Your task to perform on an android device: open sync settings in chrome Image 0: 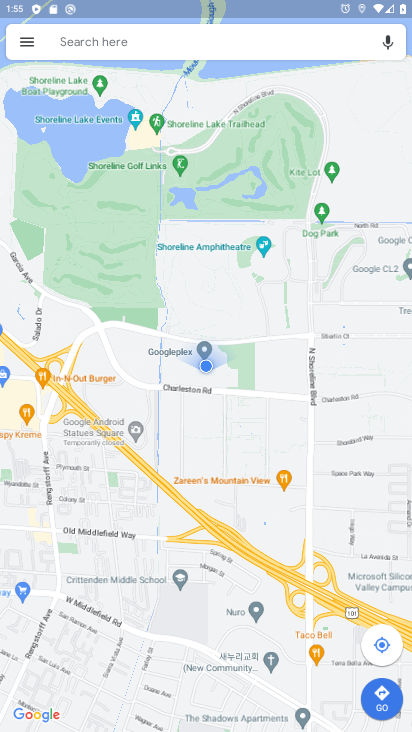
Step 0: press home button
Your task to perform on an android device: open sync settings in chrome Image 1: 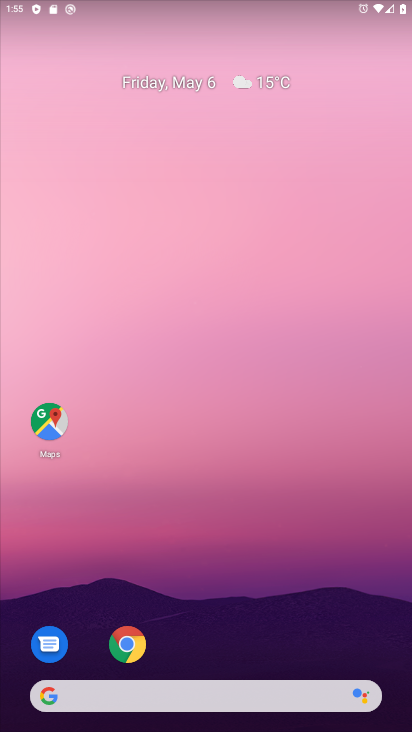
Step 1: click (139, 651)
Your task to perform on an android device: open sync settings in chrome Image 2: 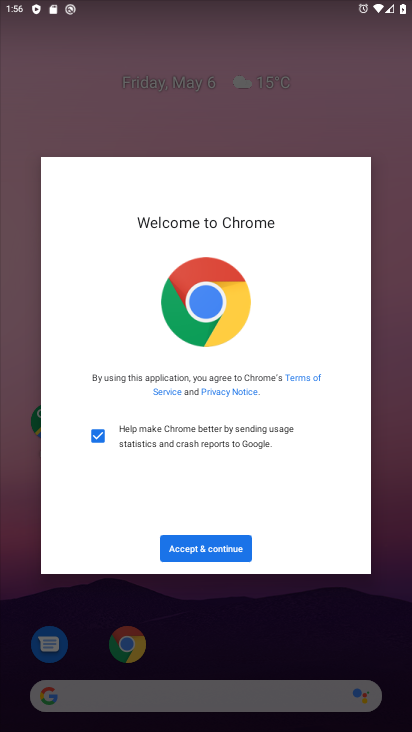
Step 2: click (218, 543)
Your task to perform on an android device: open sync settings in chrome Image 3: 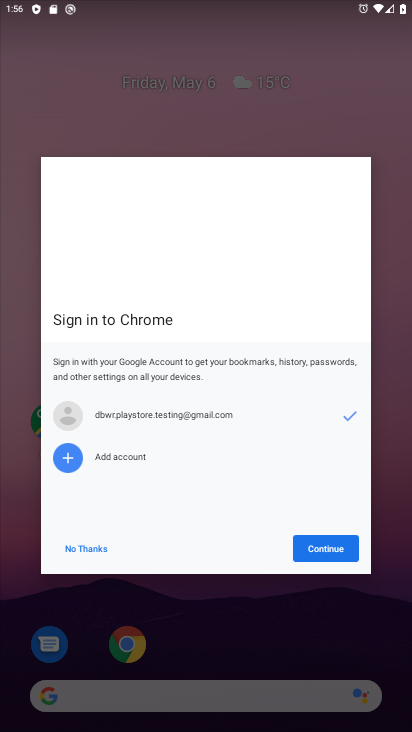
Step 3: click (315, 553)
Your task to perform on an android device: open sync settings in chrome Image 4: 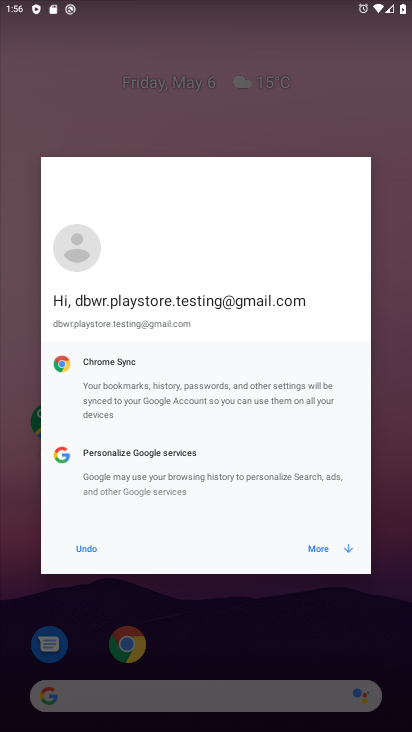
Step 4: click (315, 553)
Your task to perform on an android device: open sync settings in chrome Image 5: 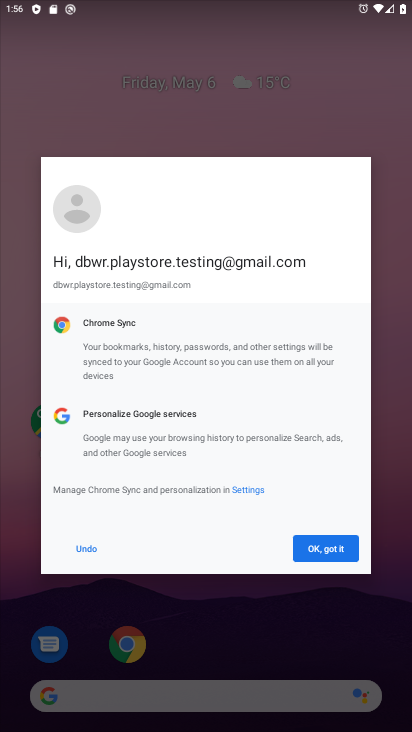
Step 5: click (315, 553)
Your task to perform on an android device: open sync settings in chrome Image 6: 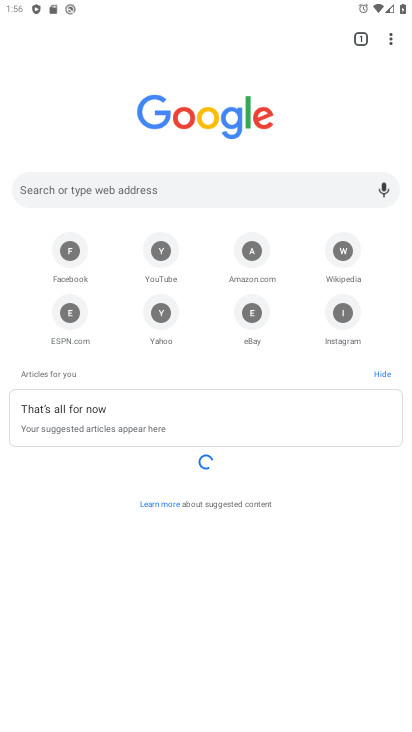
Step 6: drag from (395, 55) to (313, 328)
Your task to perform on an android device: open sync settings in chrome Image 7: 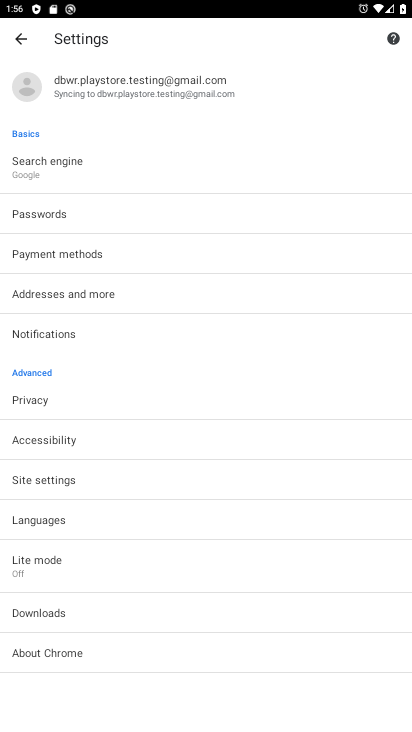
Step 7: click (185, 88)
Your task to perform on an android device: open sync settings in chrome Image 8: 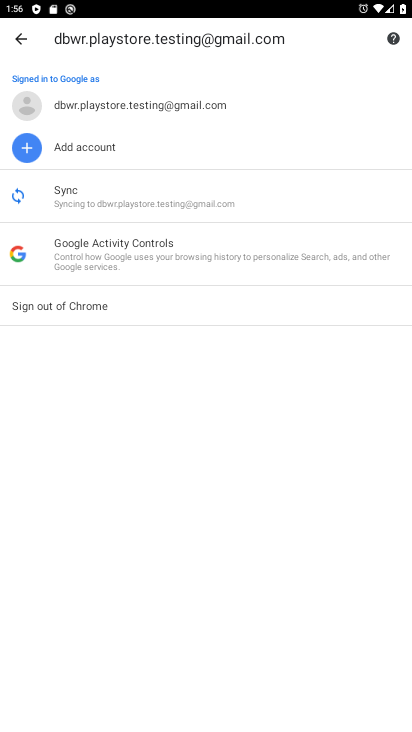
Step 8: click (192, 205)
Your task to perform on an android device: open sync settings in chrome Image 9: 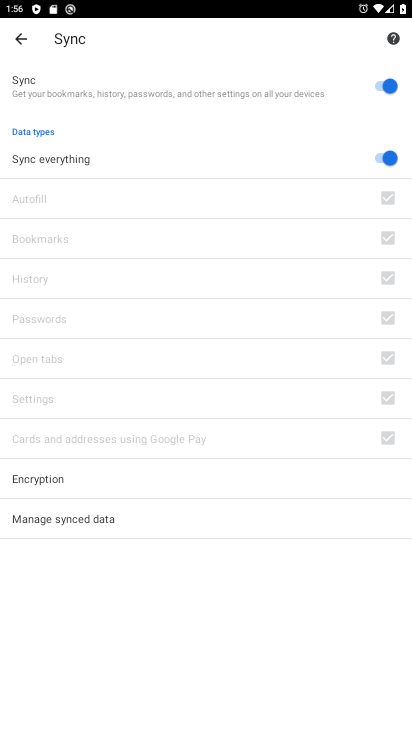
Step 9: task complete